Your task to perform on an android device: What's the weather going to be tomorrow? Image 0: 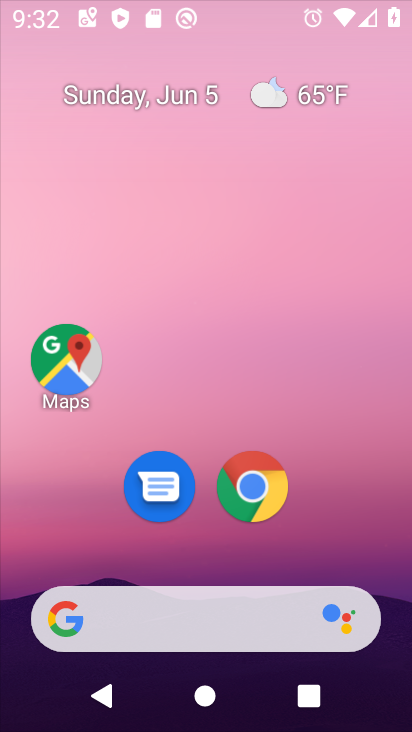
Step 0: drag from (362, 501) to (316, 151)
Your task to perform on an android device: What's the weather going to be tomorrow? Image 1: 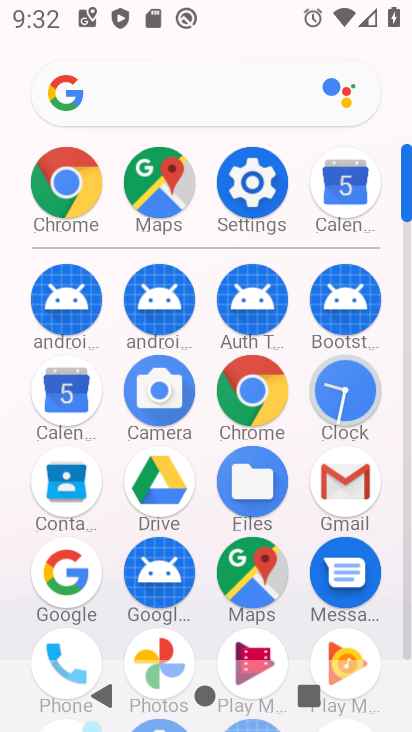
Step 1: click (272, 391)
Your task to perform on an android device: What's the weather going to be tomorrow? Image 2: 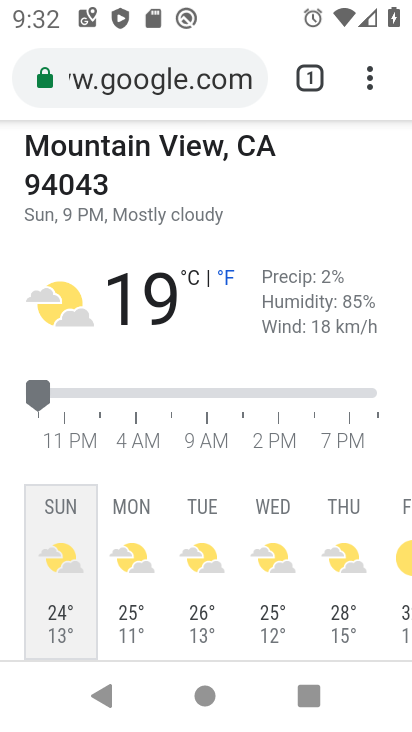
Step 2: click (172, 90)
Your task to perform on an android device: What's the weather going to be tomorrow? Image 3: 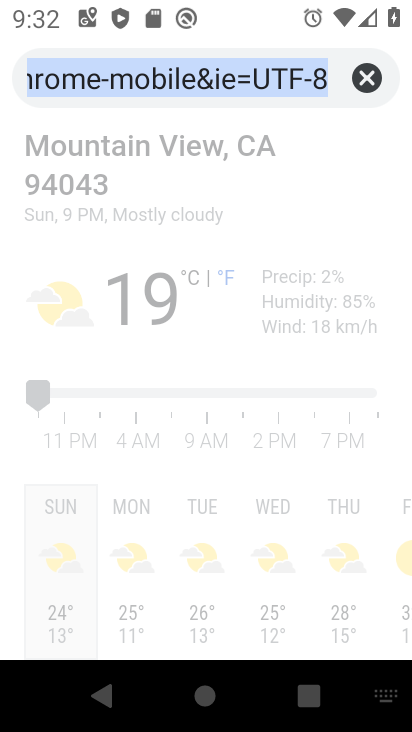
Step 3: click (376, 76)
Your task to perform on an android device: What's the weather going to be tomorrow? Image 4: 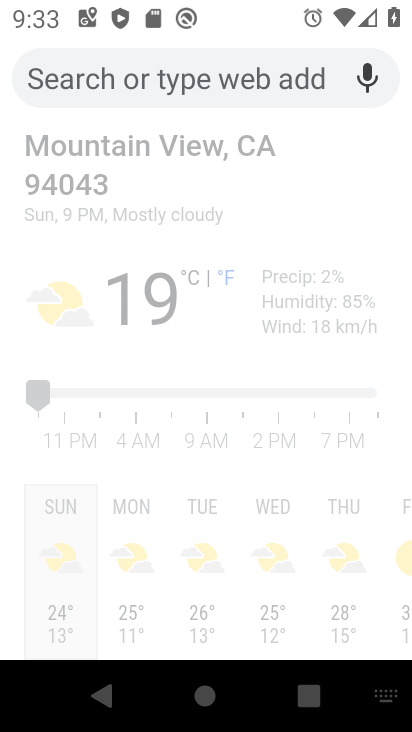
Step 4: type "What's the weather going to be tomorrow"
Your task to perform on an android device: What's the weather going to be tomorrow? Image 5: 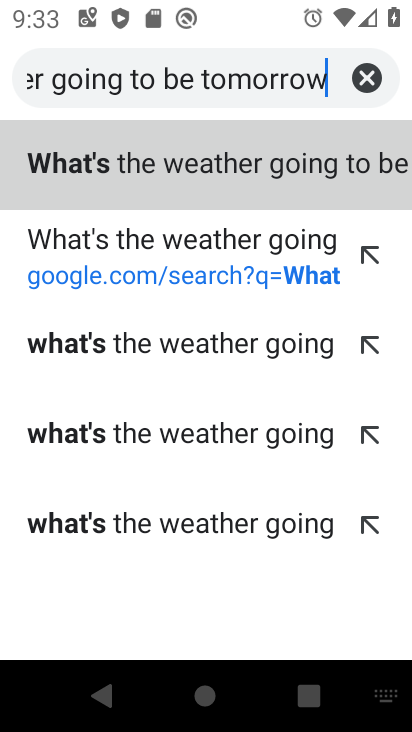
Step 5: click (183, 169)
Your task to perform on an android device: What's the weather going to be tomorrow? Image 6: 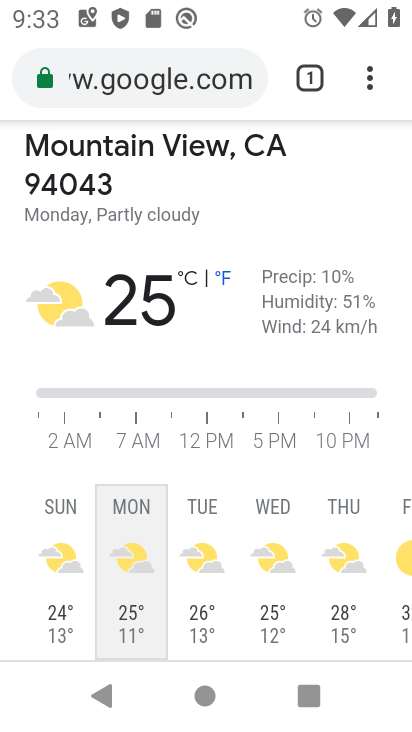
Step 6: task complete